Your task to perform on an android device: Go to ESPN.com Image 0: 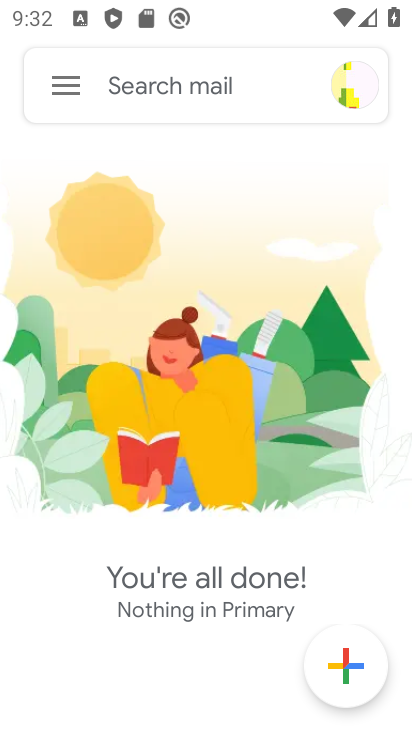
Step 0: press home button
Your task to perform on an android device: Go to ESPN.com Image 1: 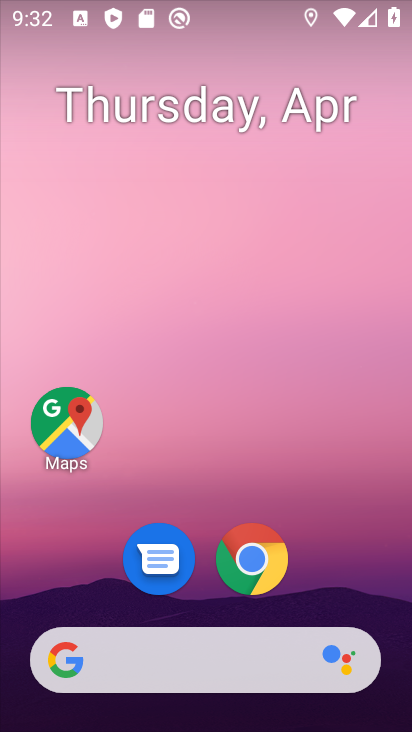
Step 1: click (226, 663)
Your task to perform on an android device: Go to ESPN.com Image 2: 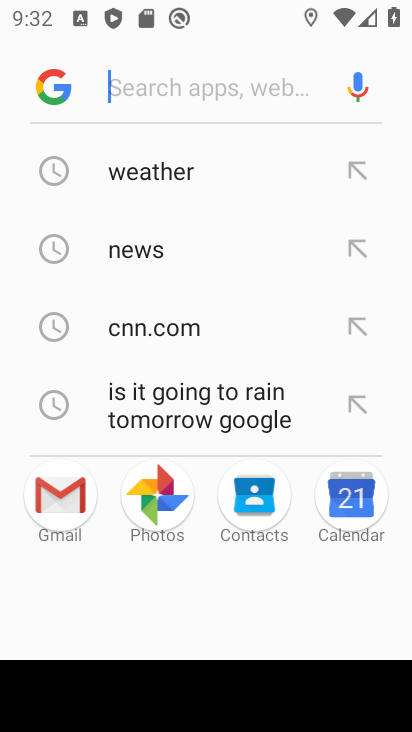
Step 2: click (224, 81)
Your task to perform on an android device: Go to ESPN.com Image 3: 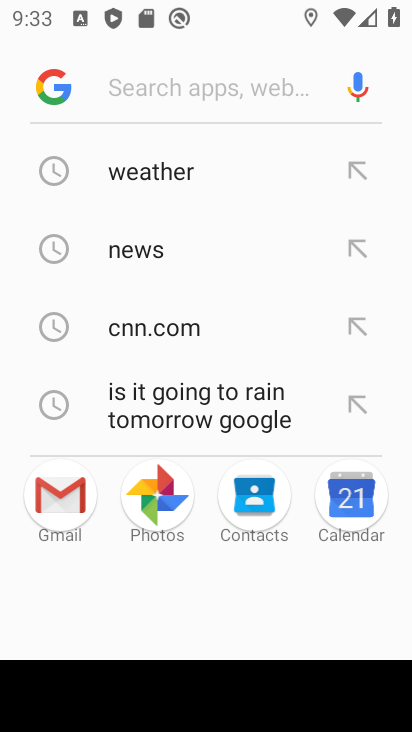
Step 3: type "espn.com"
Your task to perform on an android device: Go to ESPN.com Image 4: 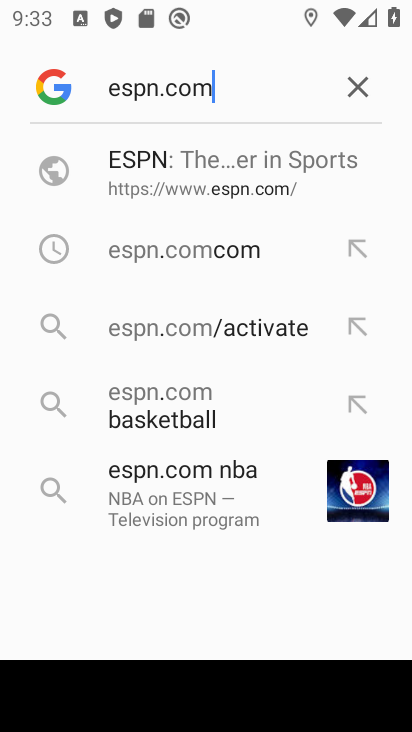
Step 4: click (261, 172)
Your task to perform on an android device: Go to ESPN.com Image 5: 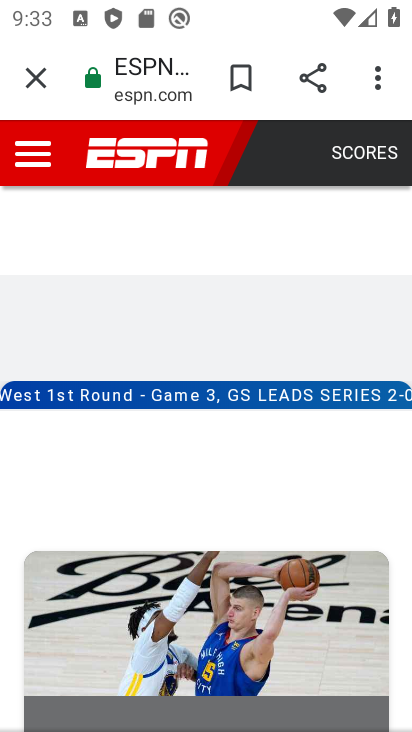
Step 5: task complete